Your task to perform on an android device: Check my gmail Image 0: 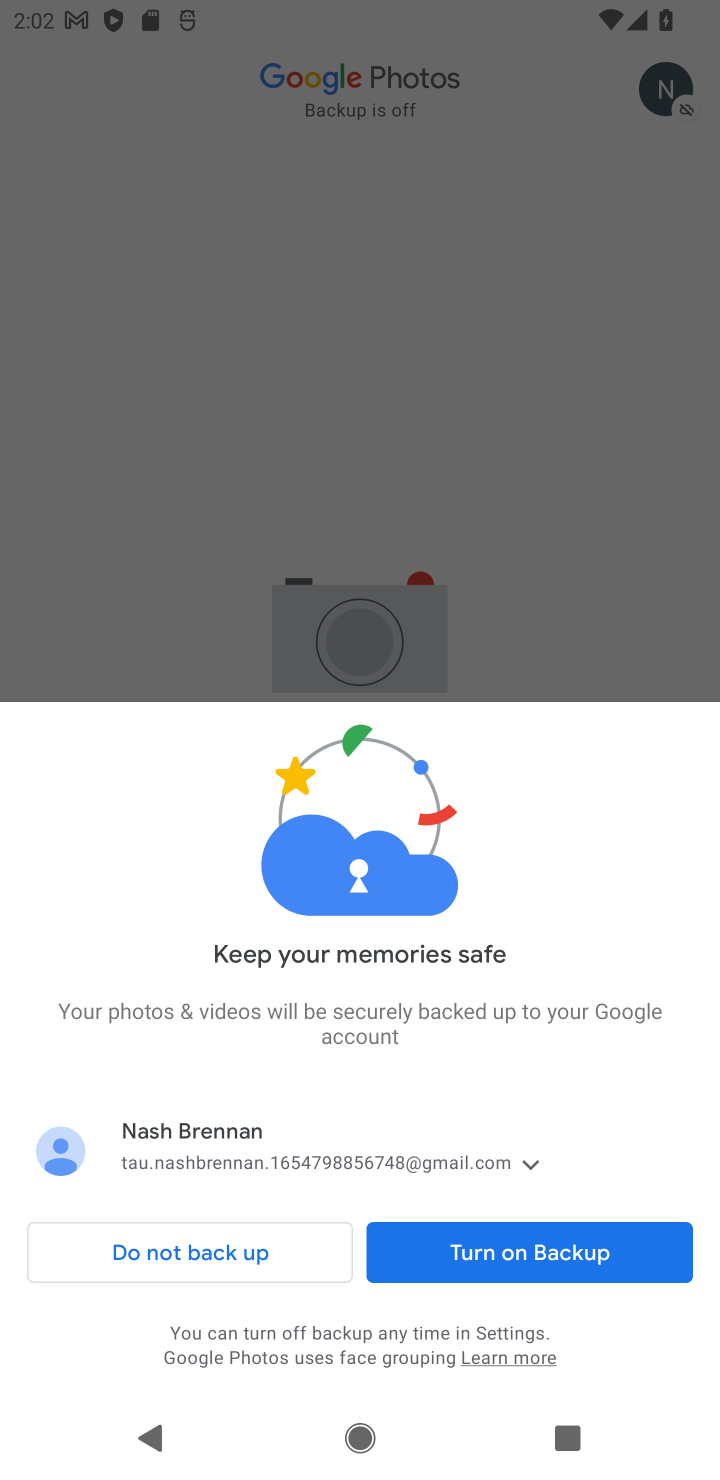
Step 0: press home button
Your task to perform on an android device: Check my gmail Image 1: 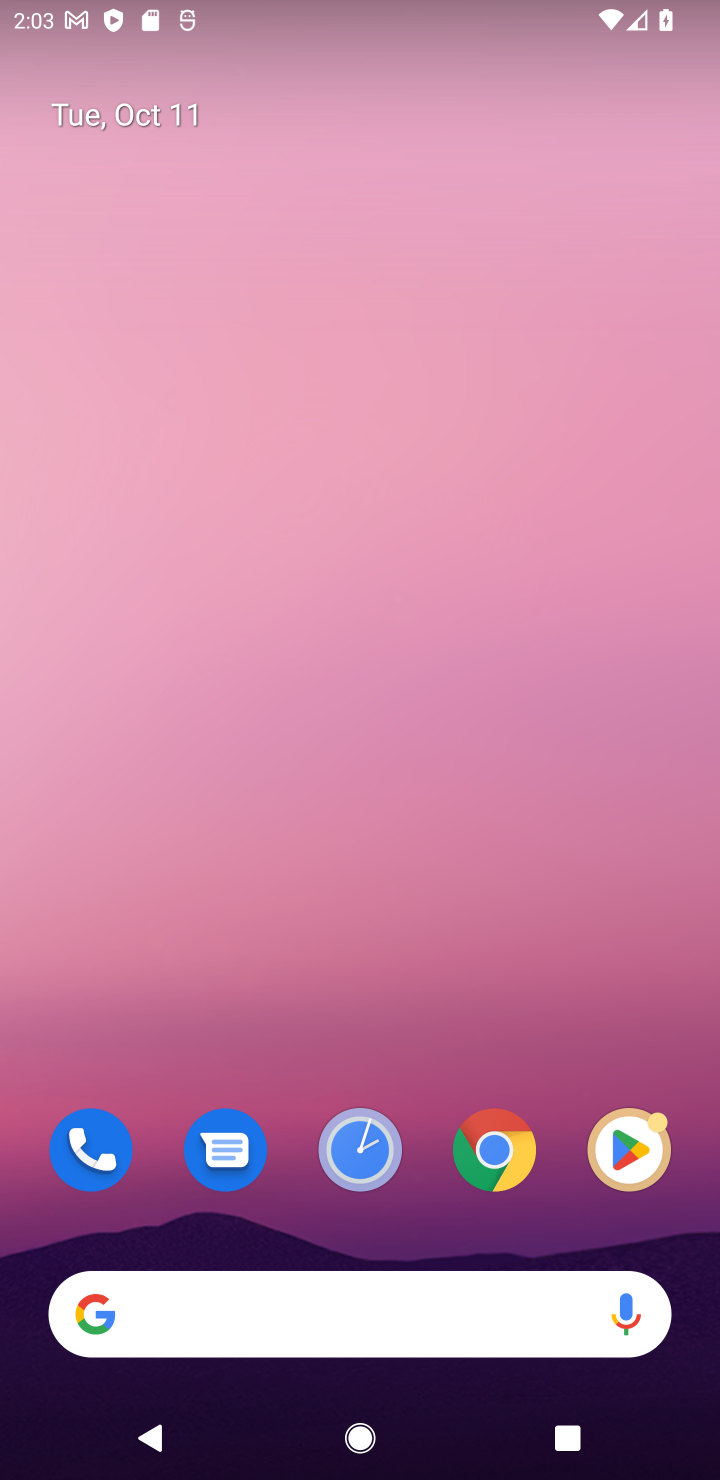
Step 1: drag from (330, 206) to (330, 62)
Your task to perform on an android device: Check my gmail Image 2: 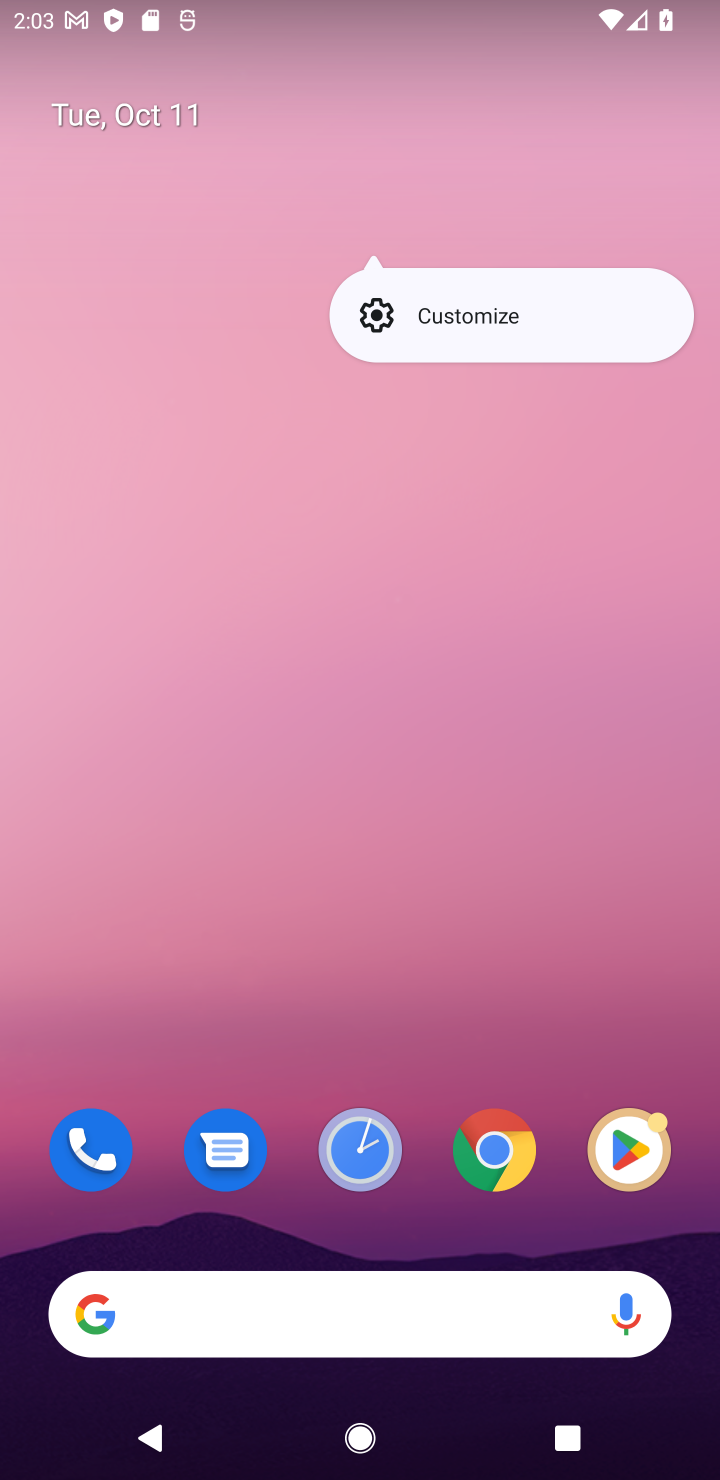
Step 2: drag from (350, 914) to (366, 277)
Your task to perform on an android device: Check my gmail Image 3: 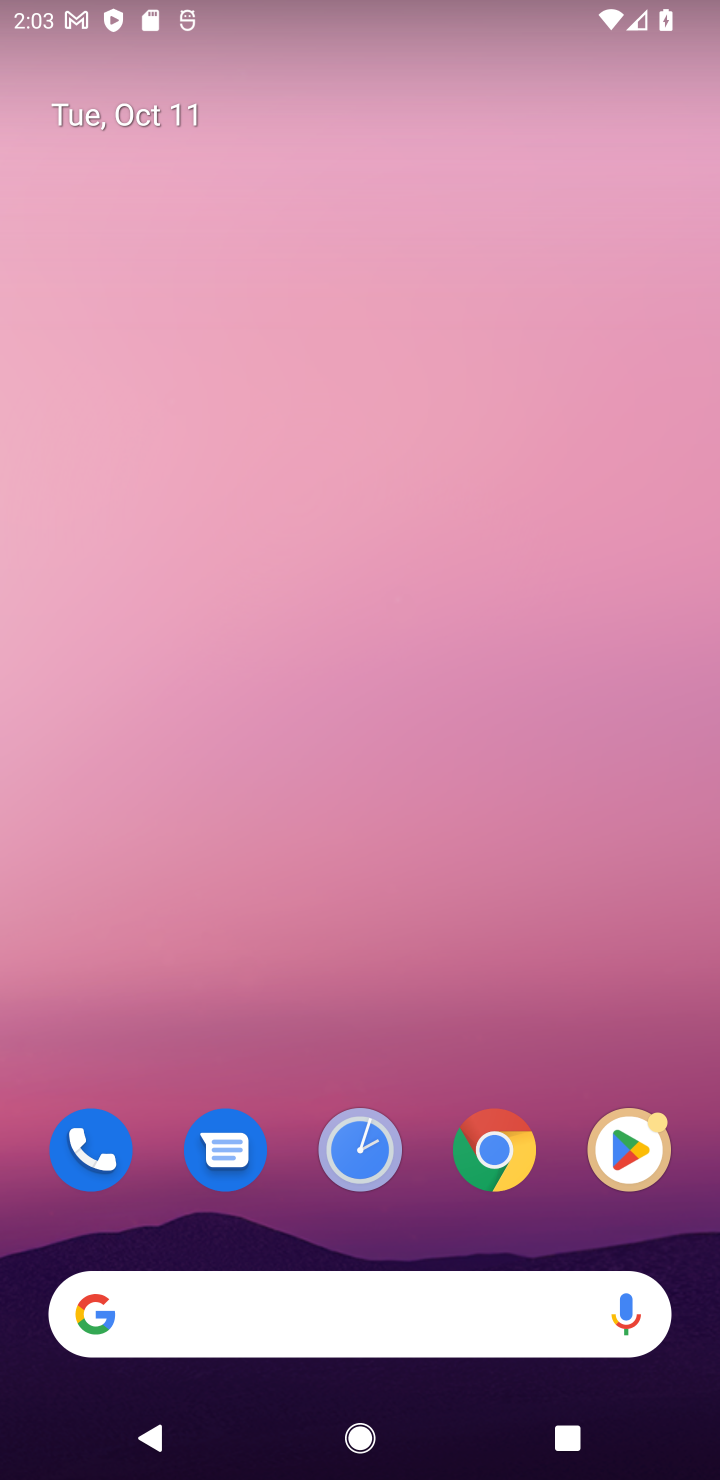
Step 3: drag from (309, 1331) to (367, 351)
Your task to perform on an android device: Check my gmail Image 4: 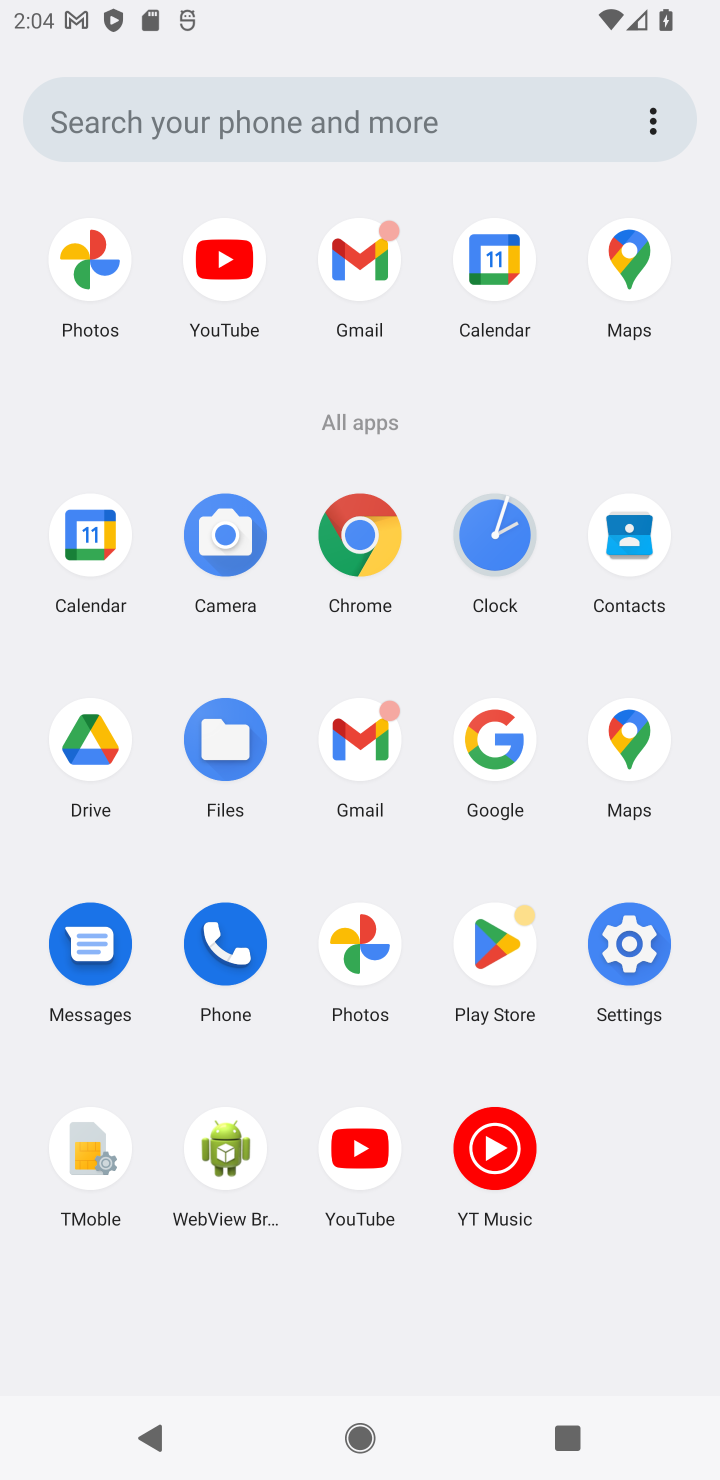
Step 4: click (354, 755)
Your task to perform on an android device: Check my gmail Image 5: 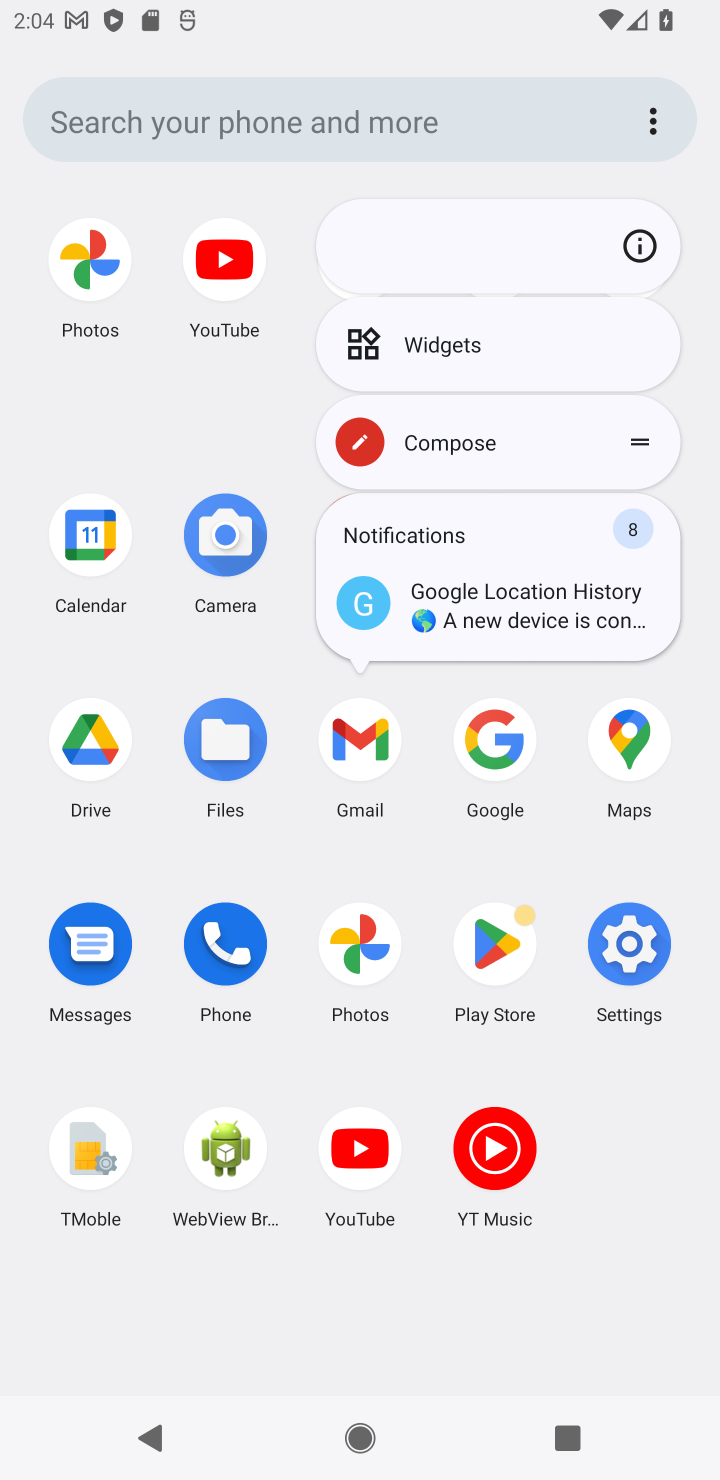
Step 5: click (320, 756)
Your task to perform on an android device: Check my gmail Image 6: 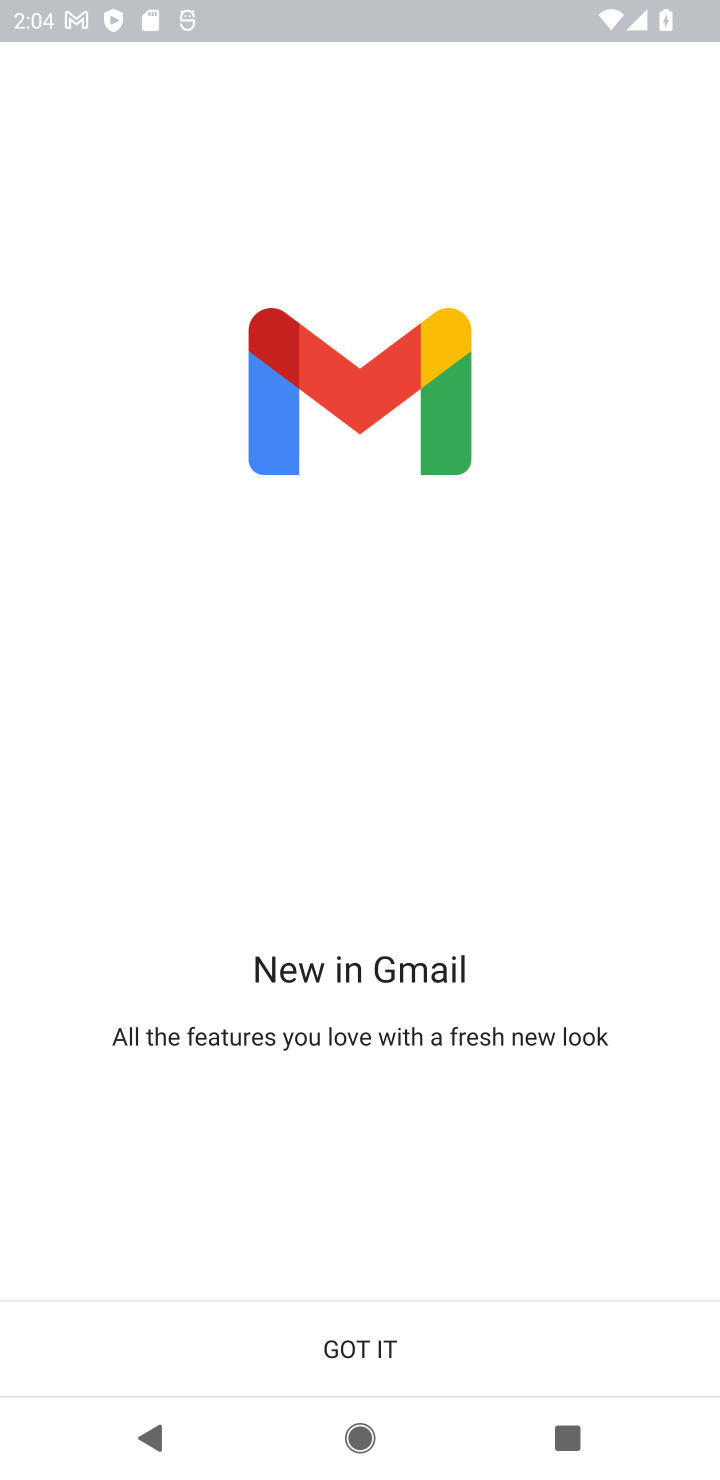
Step 6: click (353, 1349)
Your task to perform on an android device: Check my gmail Image 7: 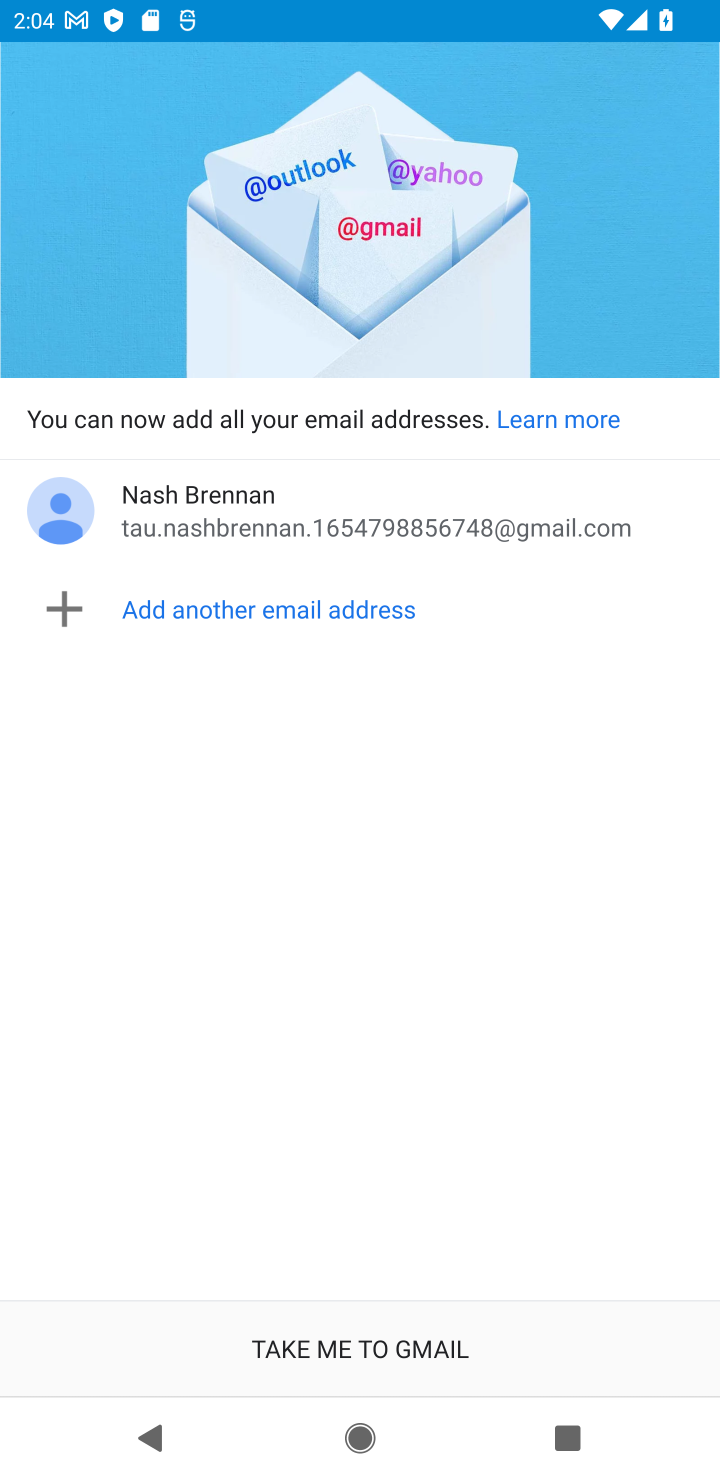
Step 7: click (353, 1349)
Your task to perform on an android device: Check my gmail Image 8: 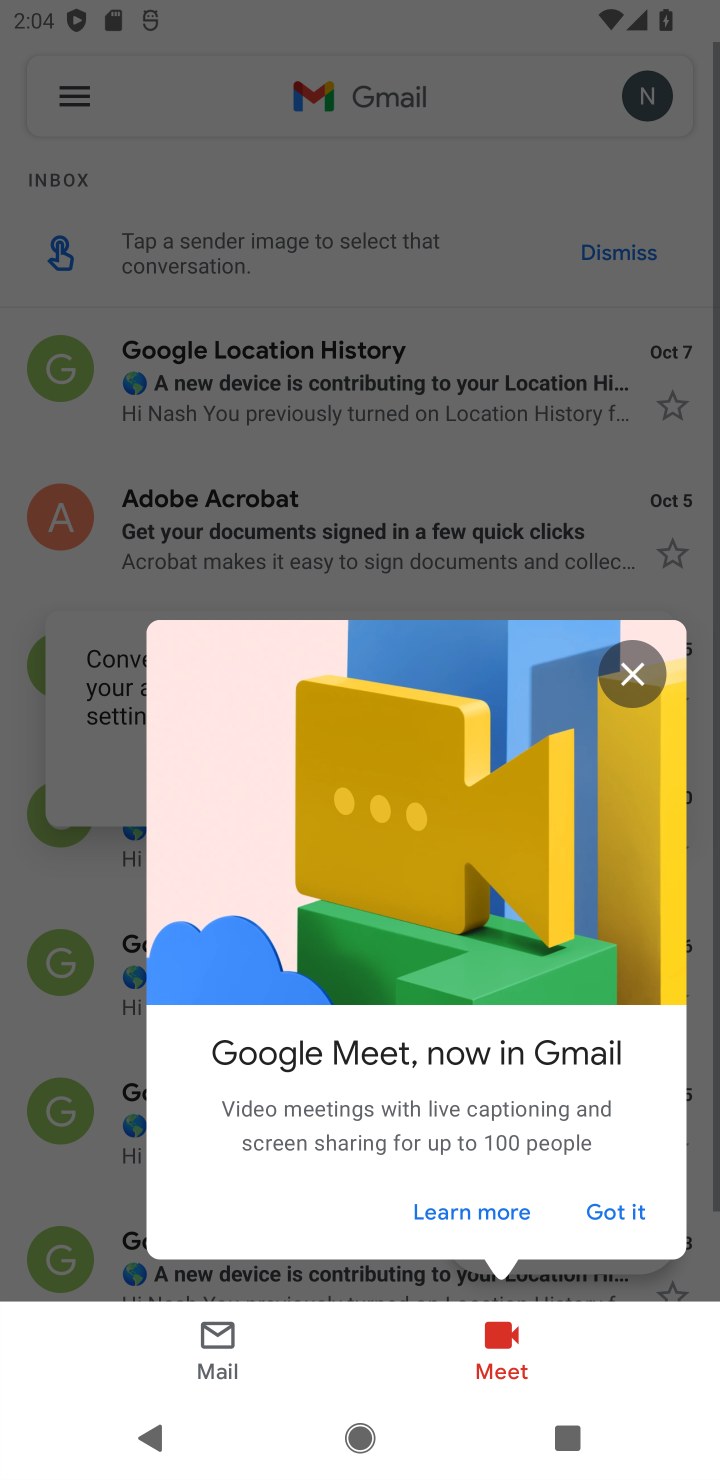
Step 8: click (616, 670)
Your task to perform on an android device: Check my gmail Image 9: 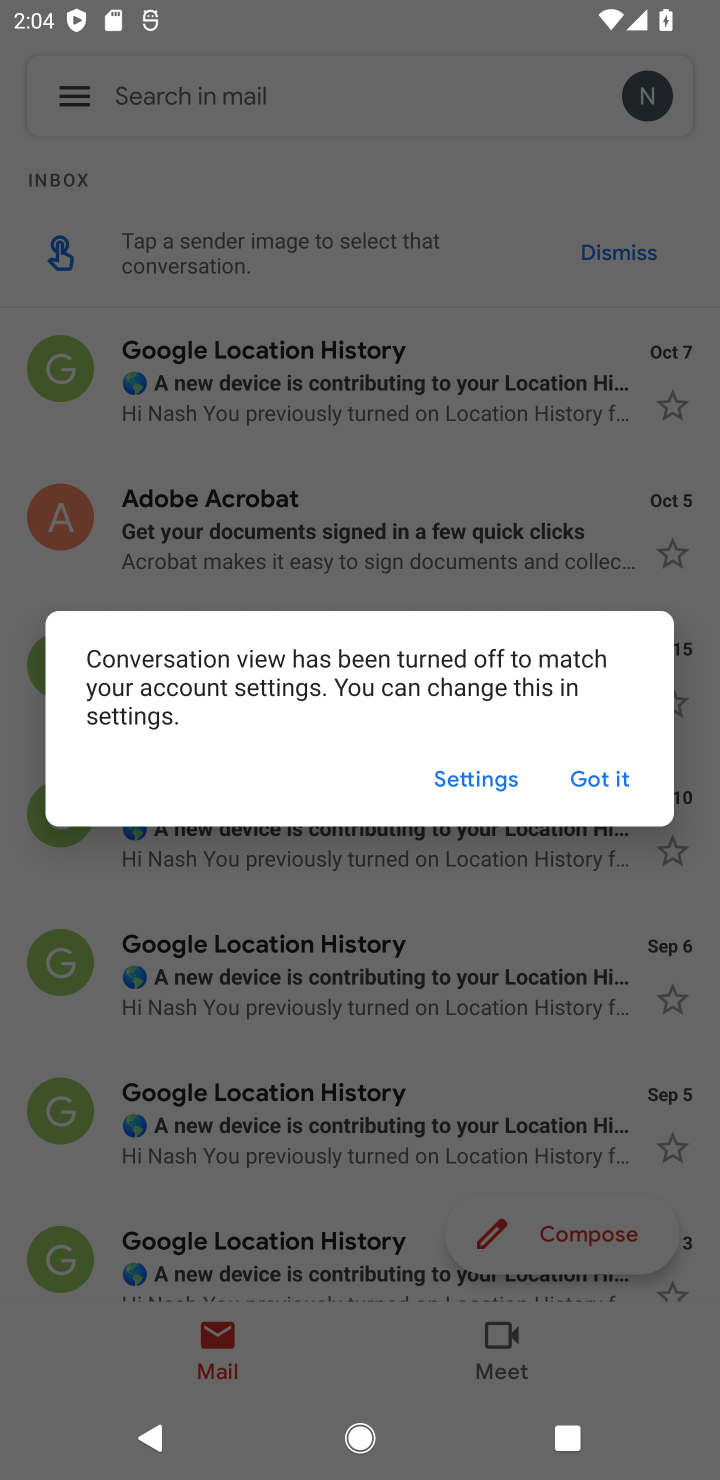
Step 9: click (603, 775)
Your task to perform on an android device: Check my gmail Image 10: 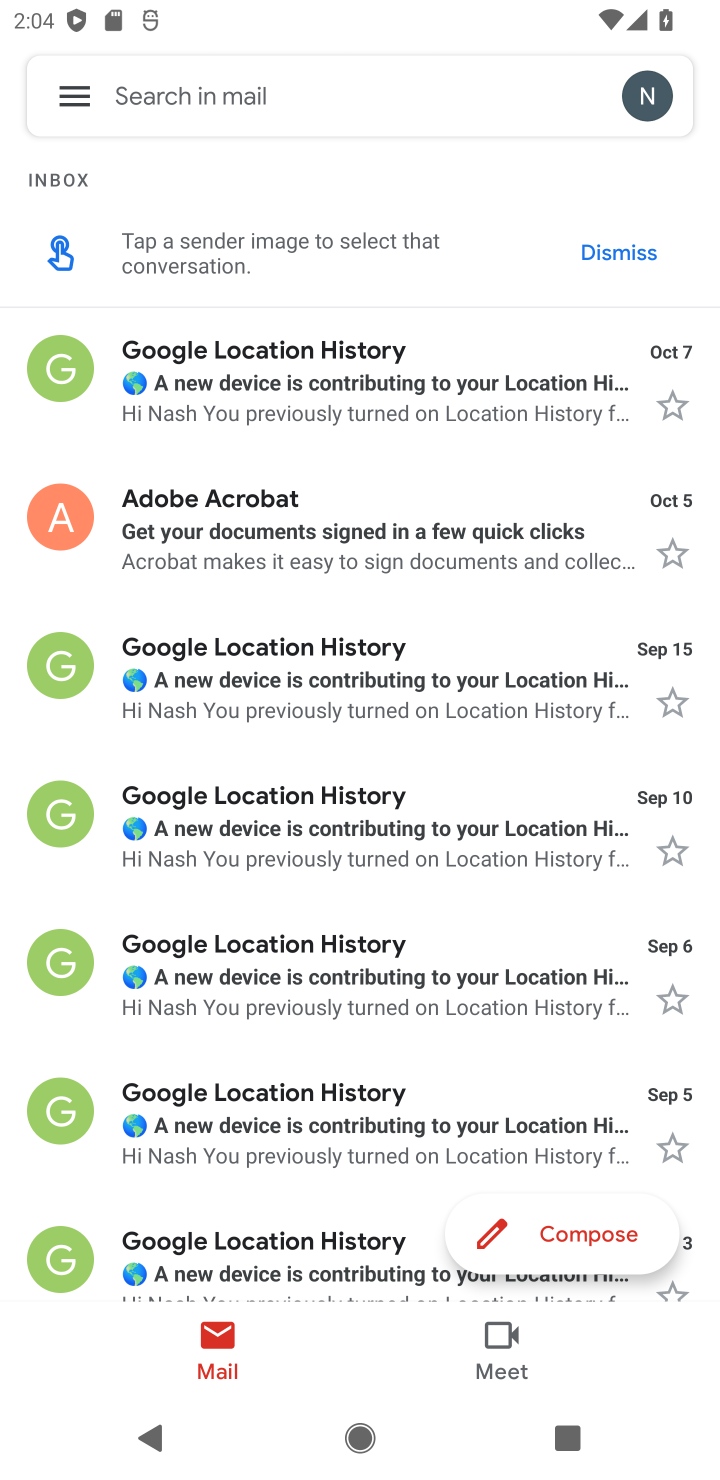
Step 10: task complete